Your task to perform on an android device: delete browsing data in the chrome app Image 0: 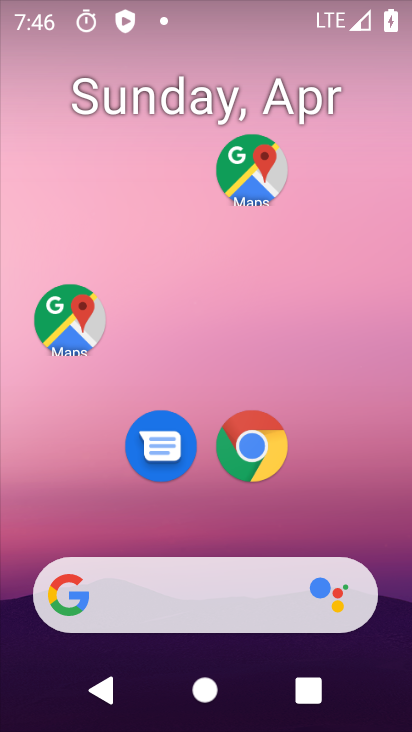
Step 0: drag from (223, 542) to (124, 29)
Your task to perform on an android device: delete browsing data in the chrome app Image 1: 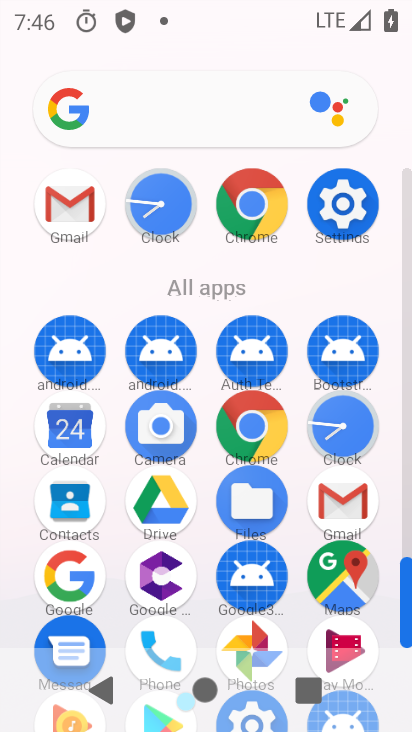
Step 1: click (254, 424)
Your task to perform on an android device: delete browsing data in the chrome app Image 2: 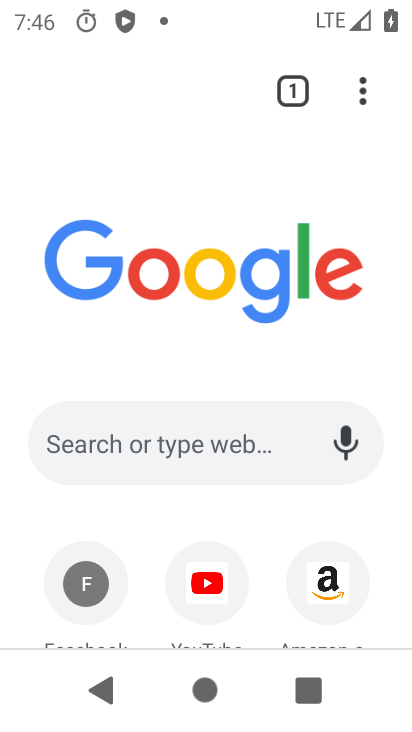
Step 2: drag from (366, 89) to (133, 469)
Your task to perform on an android device: delete browsing data in the chrome app Image 3: 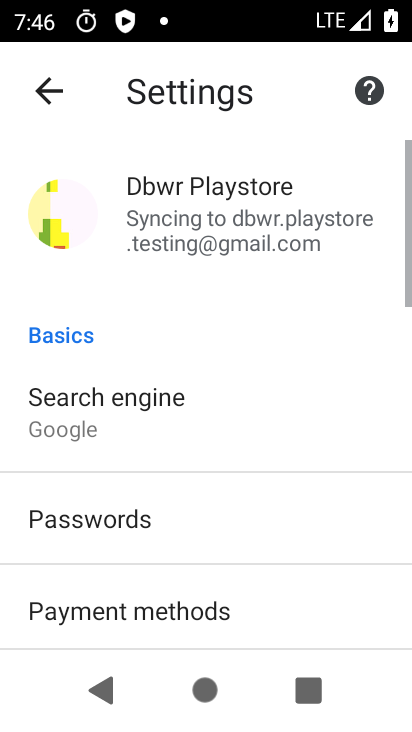
Step 3: drag from (157, 523) to (132, 27)
Your task to perform on an android device: delete browsing data in the chrome app Image 4: 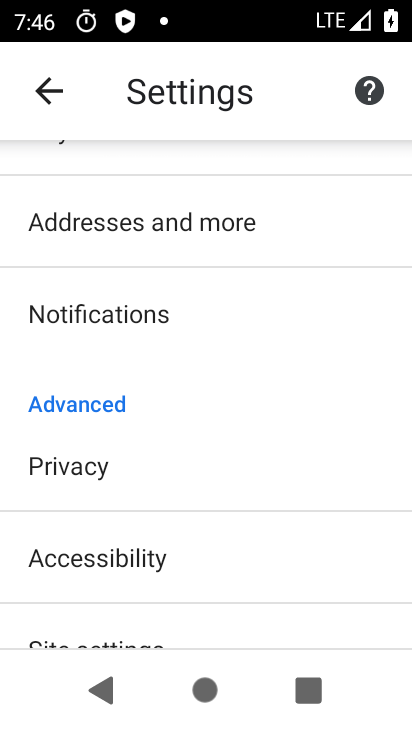
Step 4: drag from (156, 598) to (145, 201)
Your task to perform on an android device: delete browsing data in the chrome app Image 5: 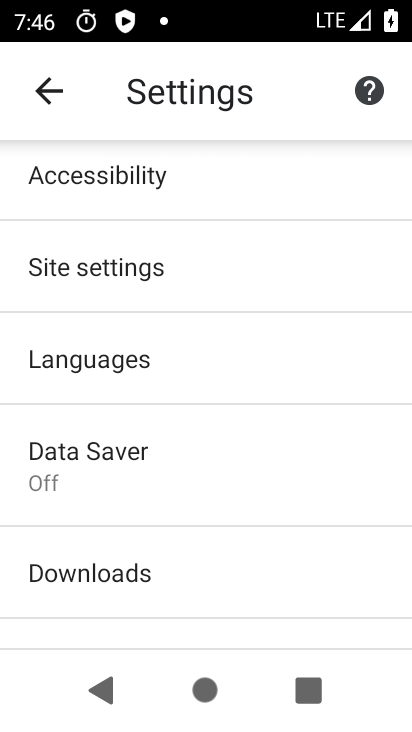
Step 5: drag from (139, 583) to (126, 181)
Your task to perform on an android device: delete browsing data in the chrome app Image 6: 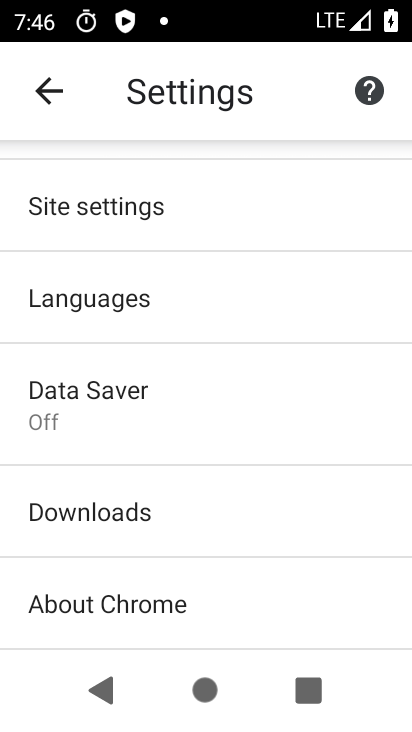
Step 6: drag from (118, 308) to (115, 647)
Your task to perform on an android device: delete browsing data in the chrome app Image 7: 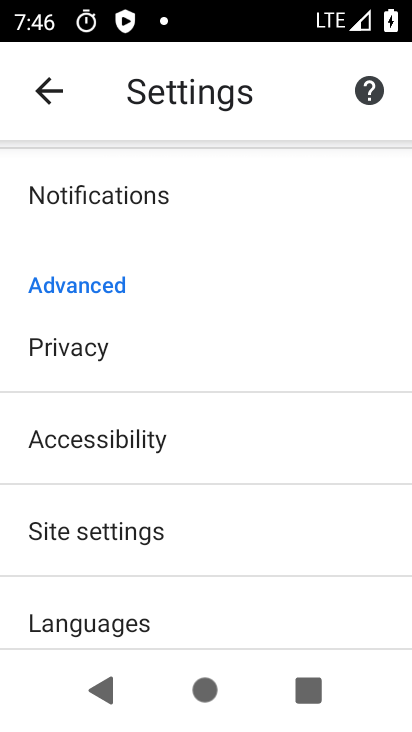
Step 7: click (116, 346)
Your task to perform on an android device: delete browsing data in the chrome app Image 8: 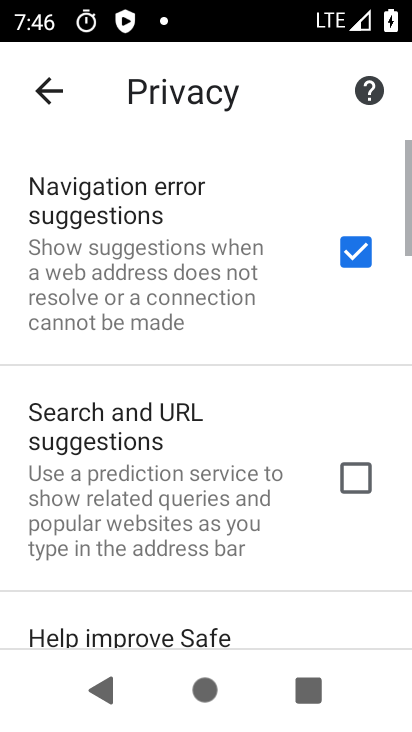
Step 8: drag from (137, 528) to (130, 0)
Your task to perform on an android device: delete browsing data in the chrome app Image 9: 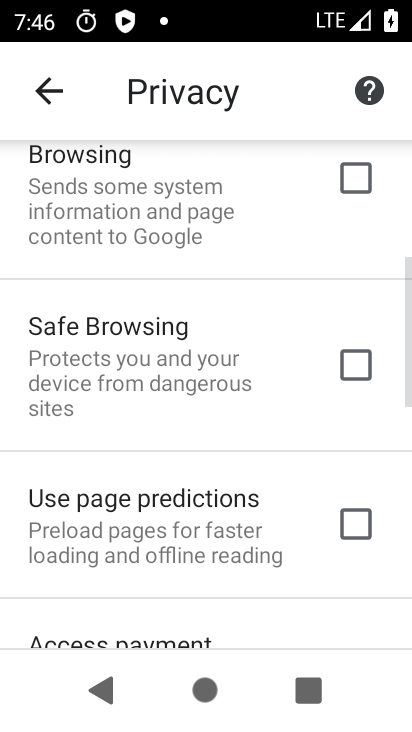
Step 9: drag from (158, 494) to (144, 145)
Your task to perform on an android device: delete browsing data in the chrome app Image 10: 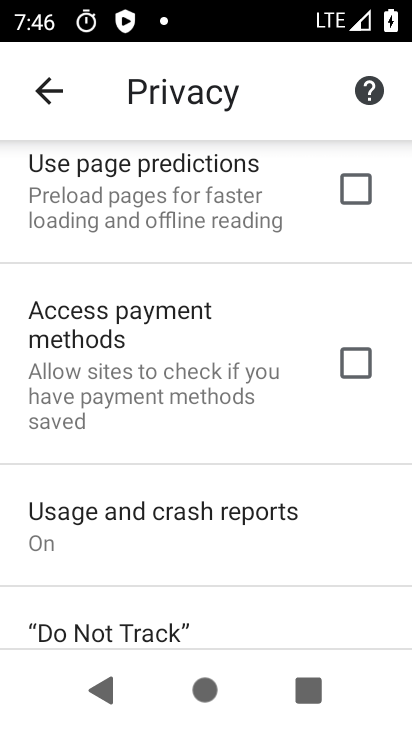
Step 10: drag from (170, 569) to (166, 43)
Your task to perform on an android device: delete browsing data in the chrome app Image 11: 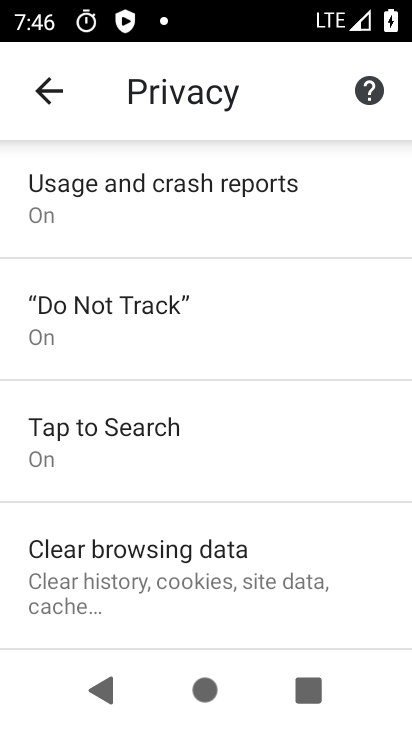
Step 11: click (177, 562)
Your task to perform on an android device: delete browsing data in the chrome app Image 12: 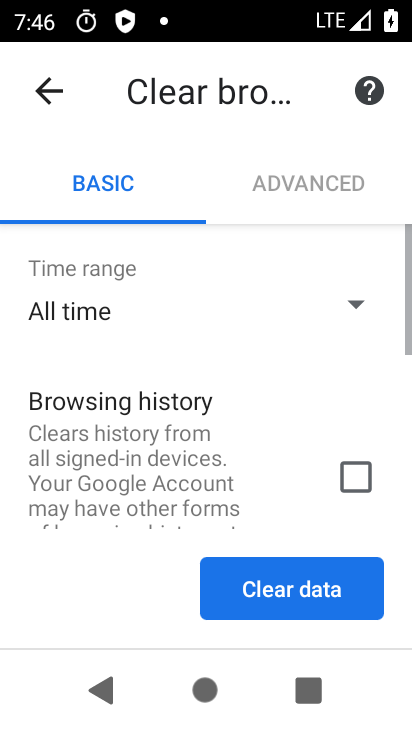
Step 12: click (345, 463)
Your task to perform on an android device: delete browsing data in the chrome app Image 13: 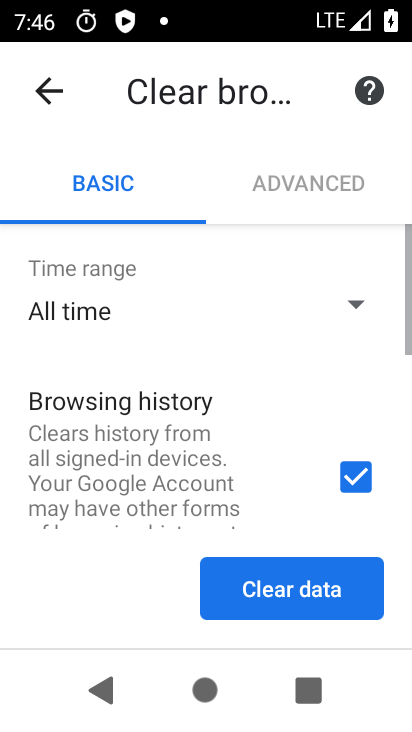
Step 13: click (353, 593)
Your task to perform on an android device: delete browsing data in the chrome app Image 14: 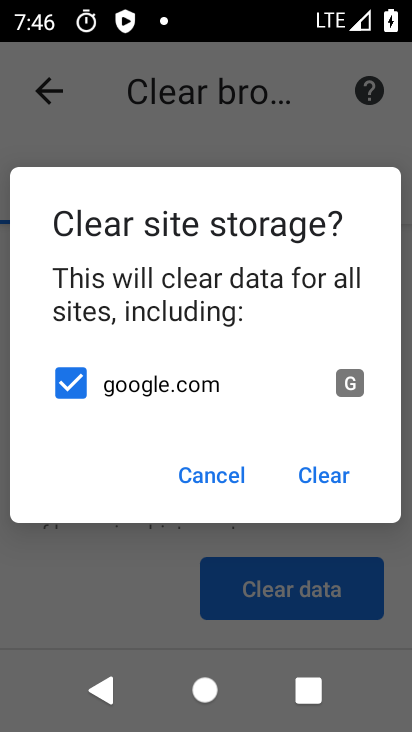
Step 14: click (341, 471)
Your task to perform on an android device: delete browsing data in the chrome app Image 15: 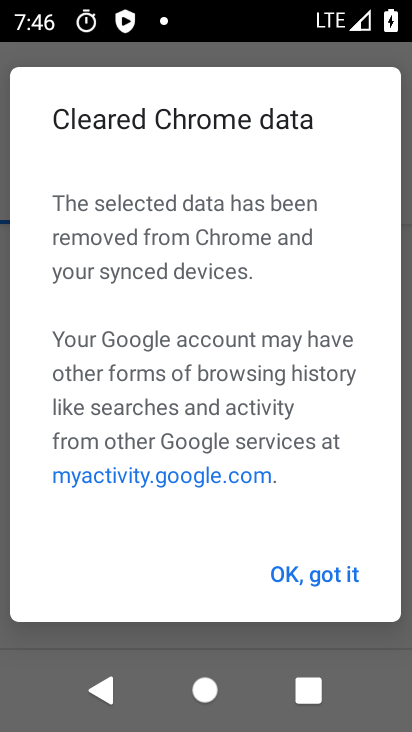
Step 15: click (344, 571)
Your task to perform on an android device: delete browsing data in the chrome app Image 16: 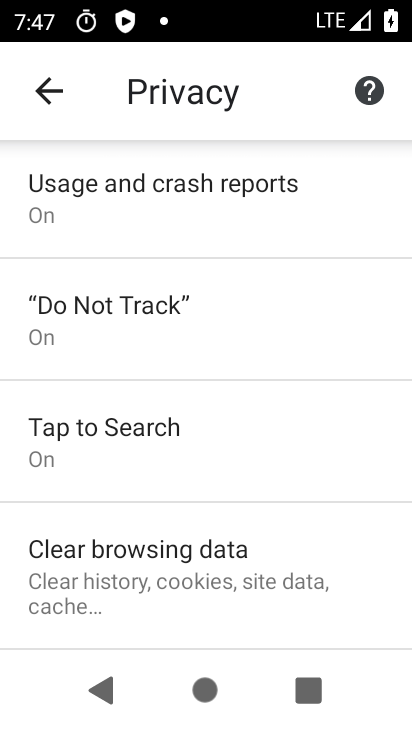
Step 16: task complete